Your task to perform on an android device: allow notifications from all sites in the chrome app Image 0: 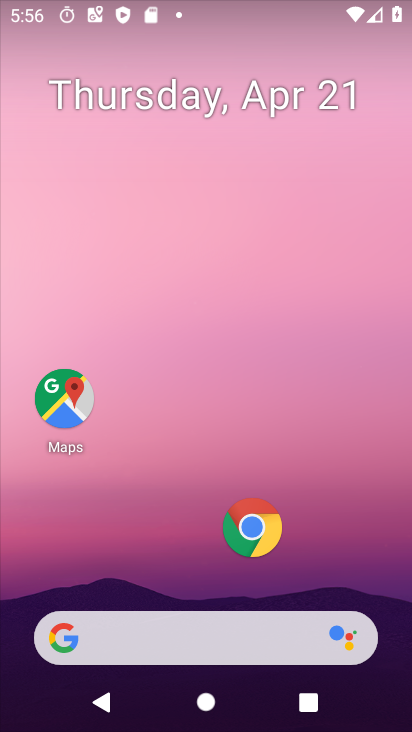
Step 0: click (255, 533)
Your task to perform on an android device: allow notifications from all sites in the chrome app Image 1: 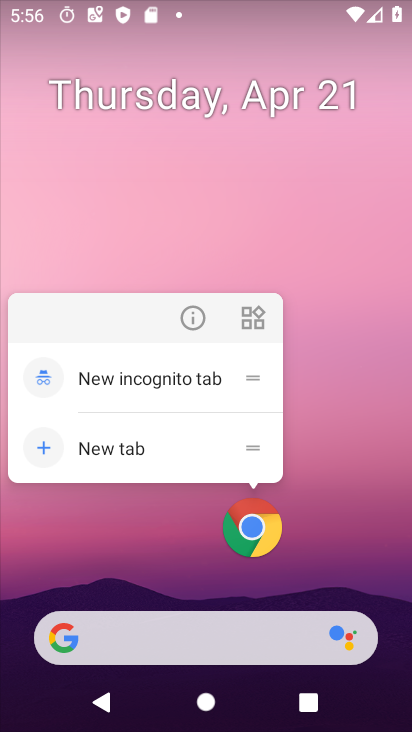
Step 1: click (275, 546)
Your task to perform on an android device: allow notifications from all sites in the chrome app Image 2: 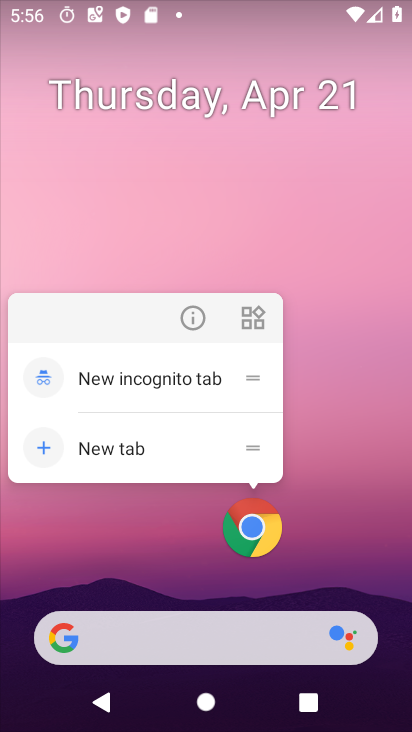
Step 2: click (265, 523)
Your task to perform on an android device: allow notifications from all sites in the chrome app Image 3: 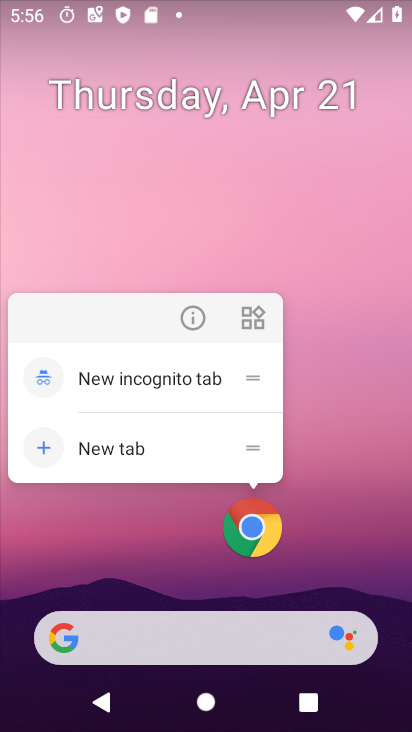
Step 3: click (255, 512)
Your task to perform on an android device: allow notifications from all sites in the chrome app Image 4: 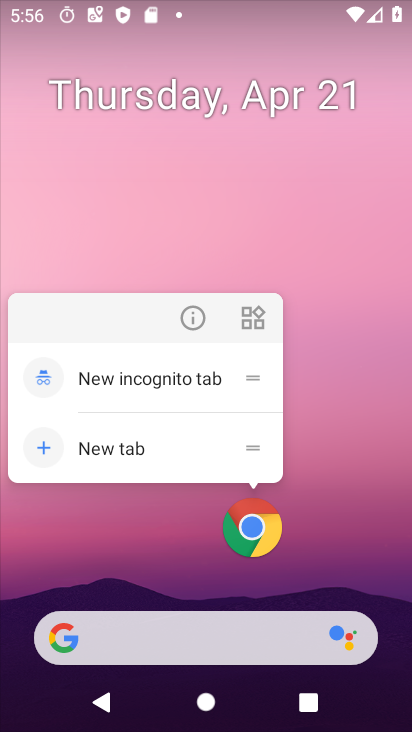
Step 4: click (245, 523)
Your task to perform on an android device: allow notifications from all sites in the chrome app Image 5: 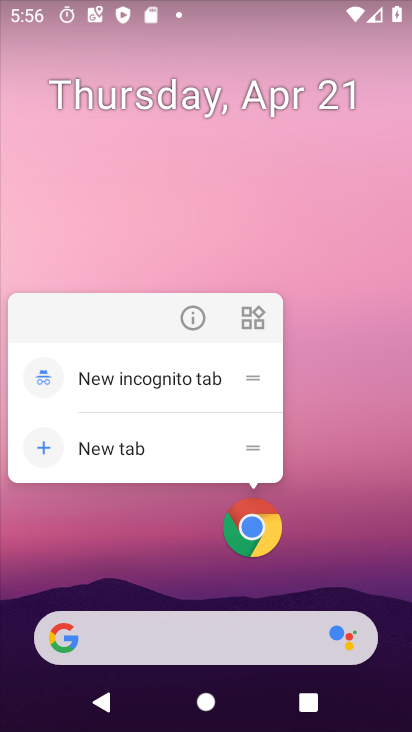
Step 5: click (269, 521)
Your task to perform on an android device: allow notifications from all sites in the chrome app Image 6: 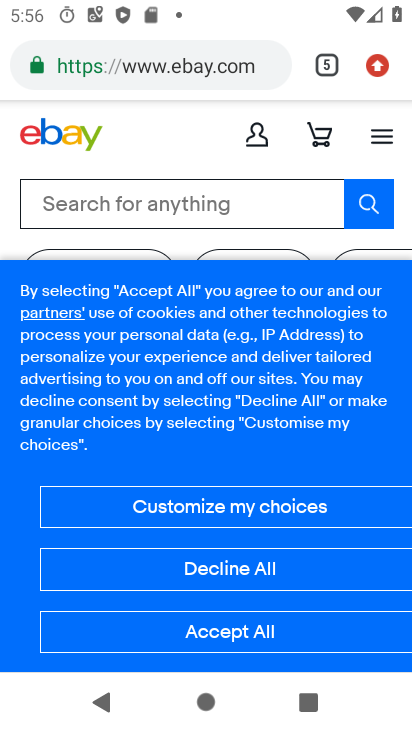
Step 6: drag from (377, 59) to (184, 576)
Your task to perform on an android device: allow notifications from all sites in the chrome app Image 7: 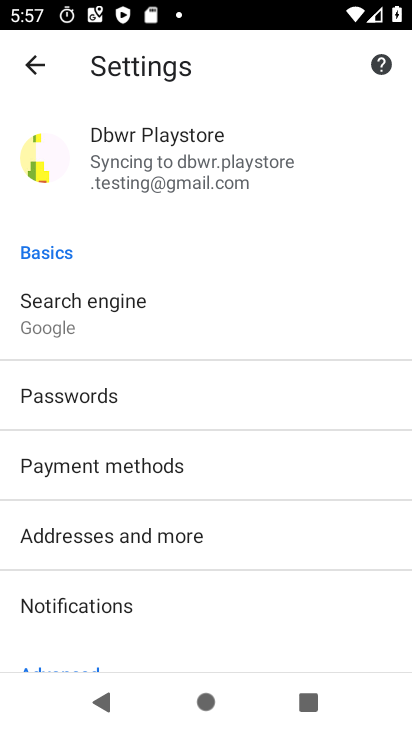
Step 7: click (174, 600)
Your task to perform on an android device: allow notifications from all sites in the chrome app Image 8: 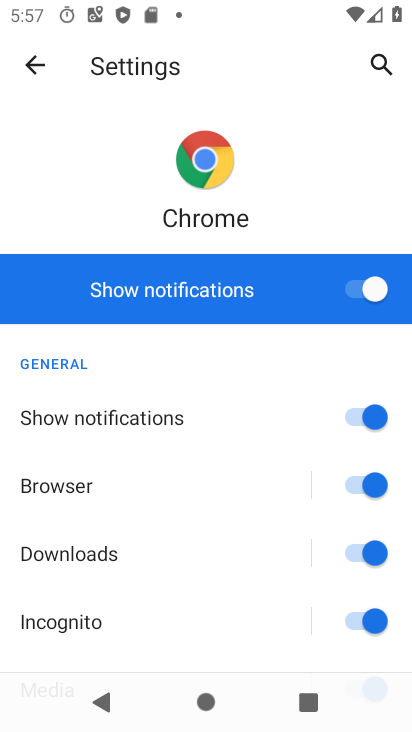
Step 8: task complete